Your task to perform on an android device: Go to wifi settings Image 0: 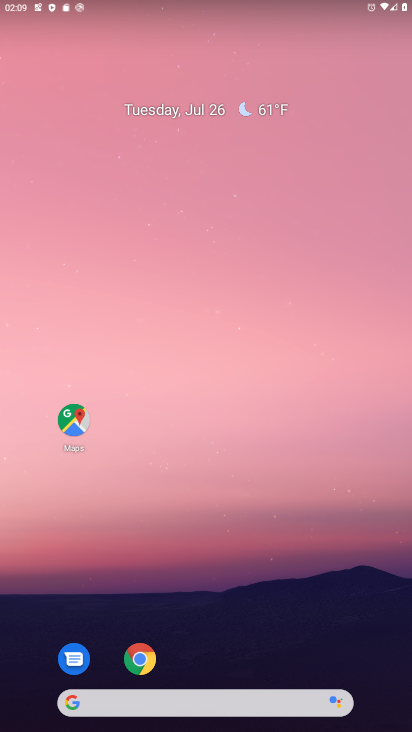
Step 0: drag from (268, 660) to (139, 35)
Your task to perform on an android device: Go to wifi settings Image 1: 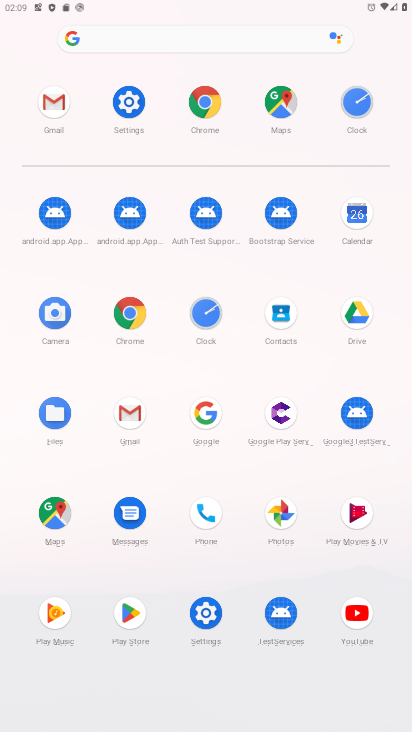
Step 1: click (122, 95)
Your task to perform on an android device: Go to wifi settings Image 2: 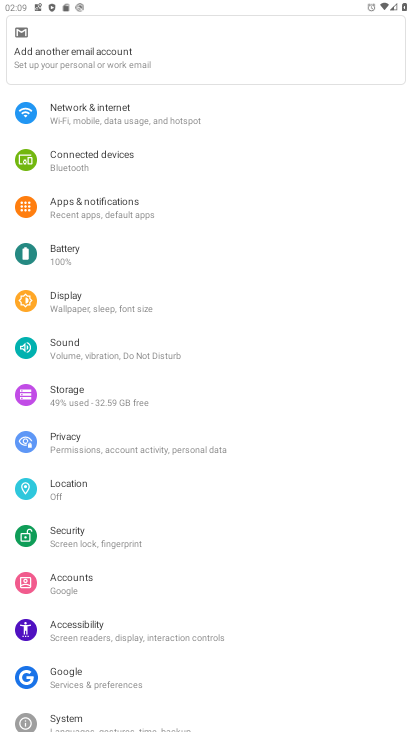
Step 2: click (58, 107)
Your task to perform on an android device: Go to wifi settings Image 3: 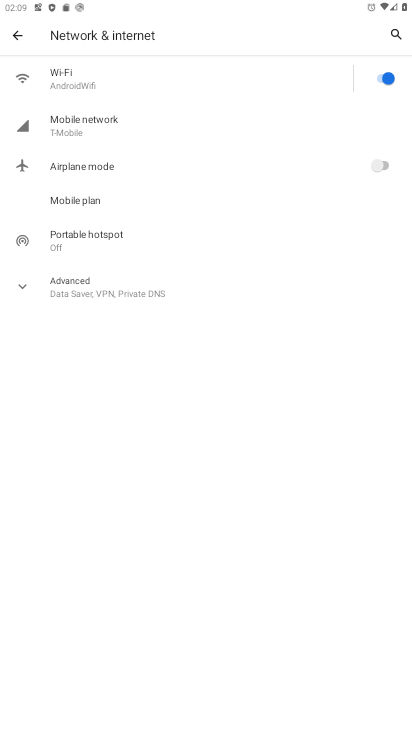
Step 3: click (228, 78)
Your task to perform on an android device: Go to wifi settings Image 4: 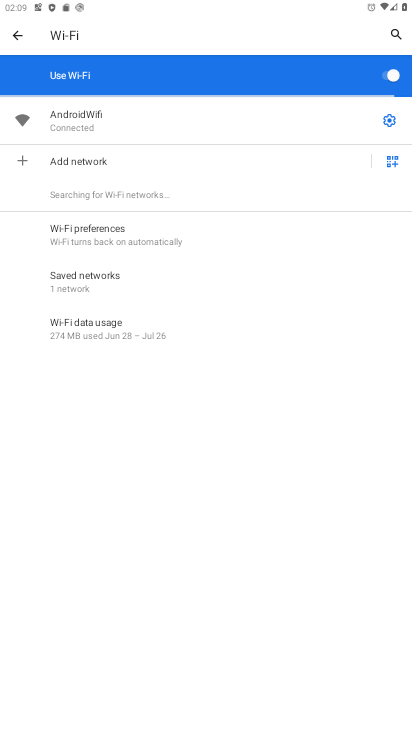
Step 4: click (389, 118)
Your task to perform on an android device: Go to wifi settings Image 5: 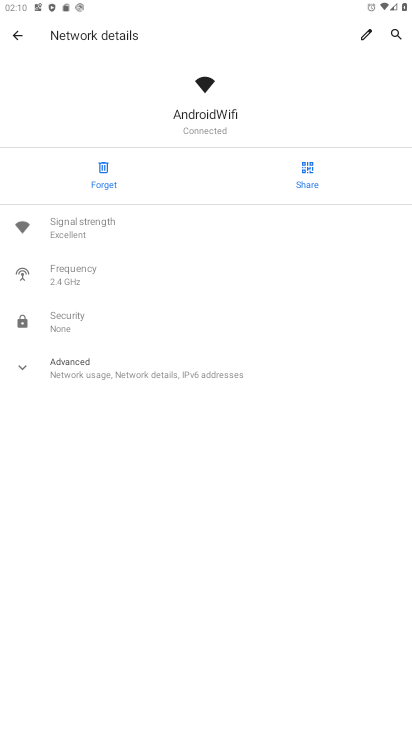
Step 5: task complete